Your task to perform on an android device: What's the weather? Image 0: 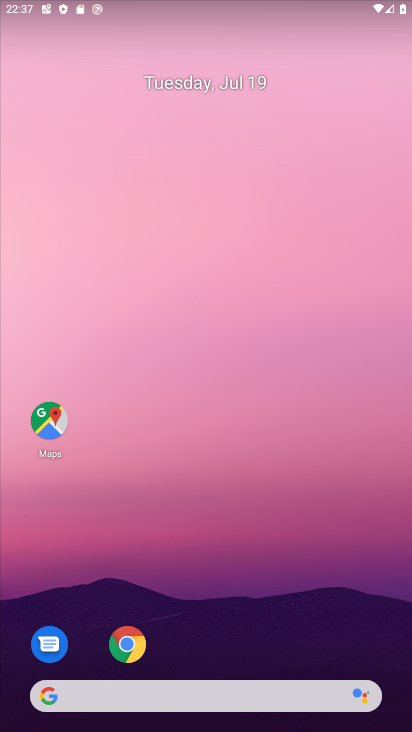
Step 0: drag from (244, 724) to (225, 490)
Your task to perform on an android device: What's the weather? Image 1: 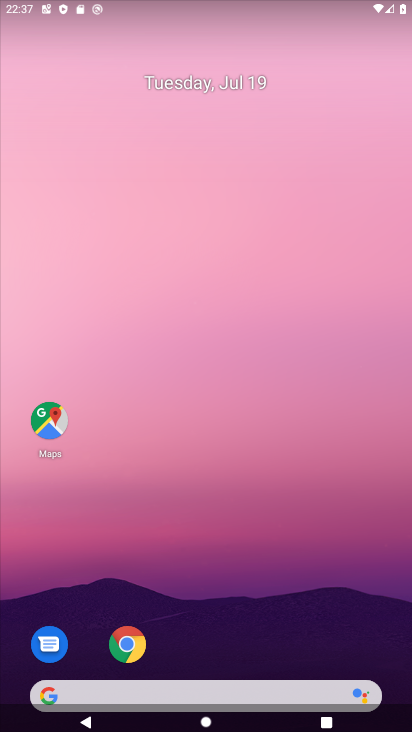
Step 1: drag from (236, 722) to (236, 320)
Your task to perform on an android device: What's the weather? Image 2: 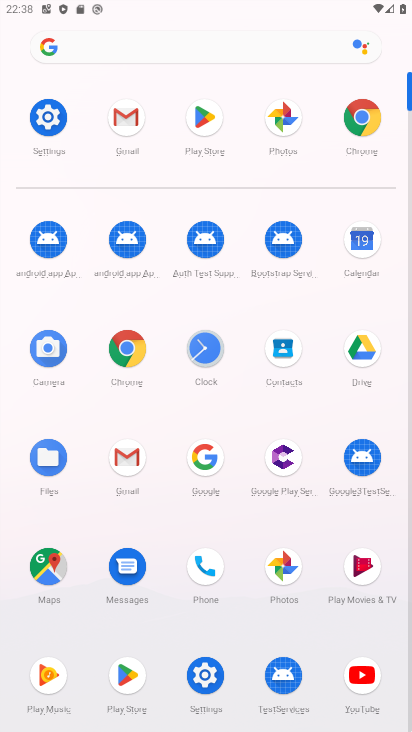
Step 2: click (199, 458)
Your task to perform on an android device: What's the weather? Image 3: 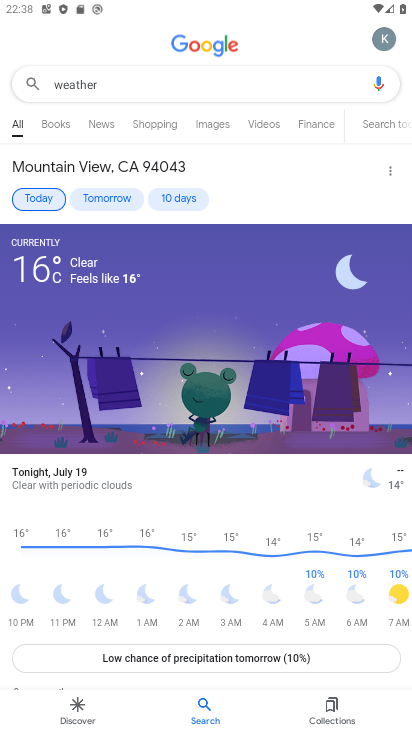
Step 3: click (47, 198)
Your task to perform on an android device: What's the weather? Image 4: 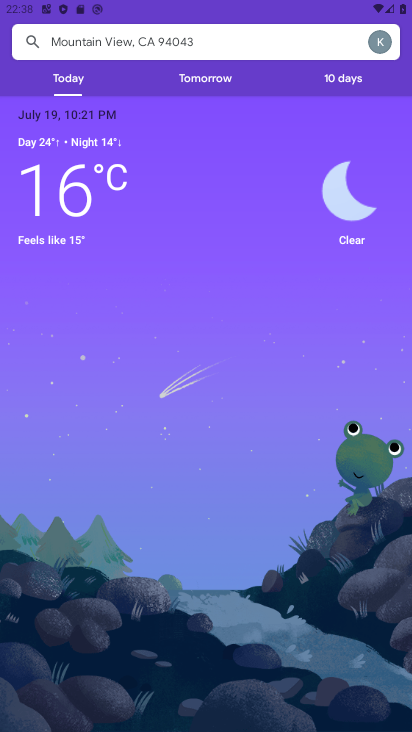
Step 4: task complete